Your task to perform on an android device: uninstall "Etsy: Buy & Sell Unique Items" Image 0: 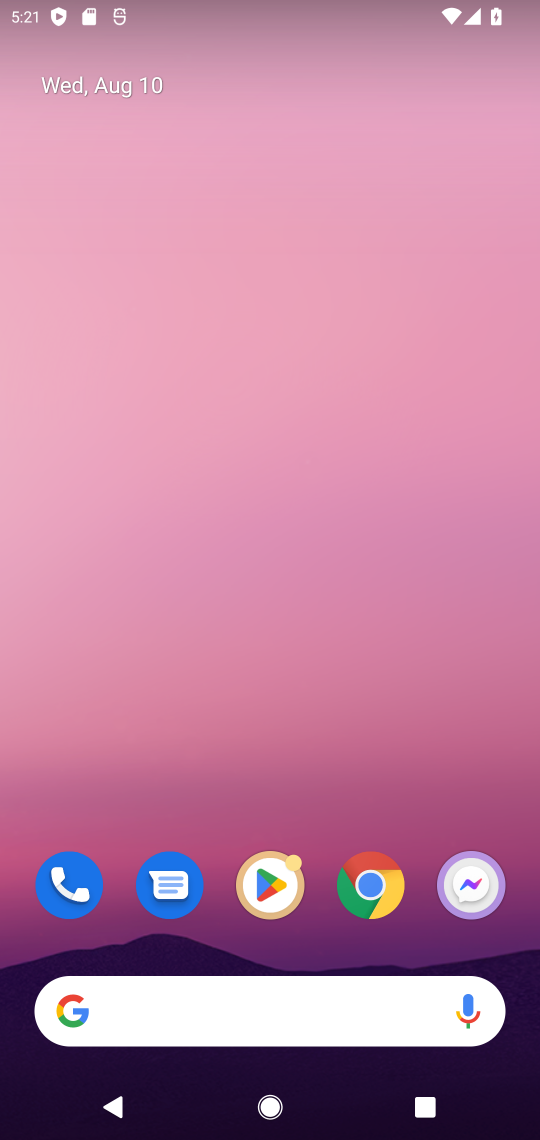
Step 0: click (274, 884)
Your task to perform on an android device: uninstall "Etsy: Buy & Sell Unique Items" Image 1: 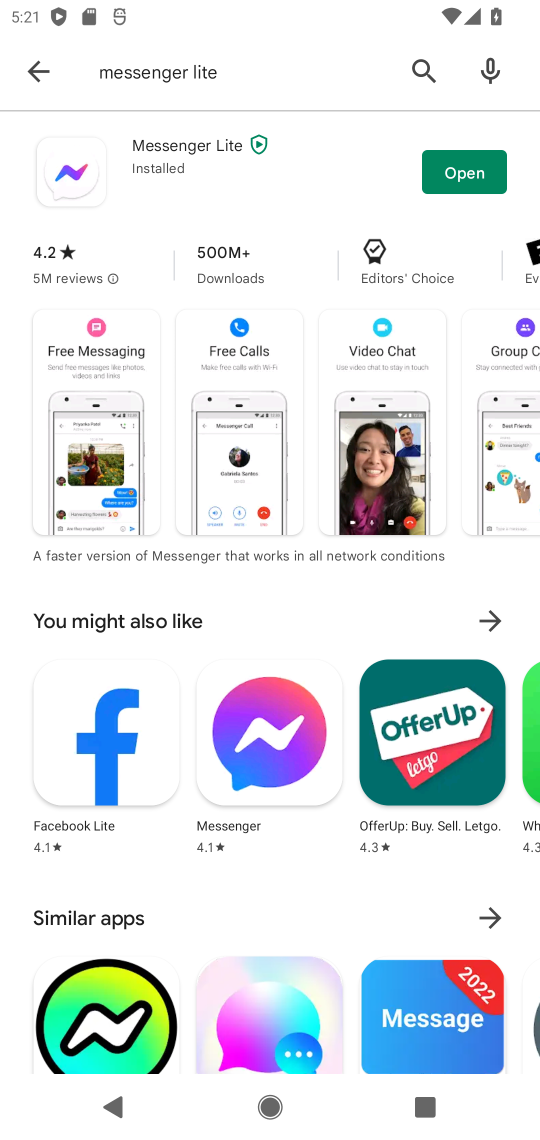
Step 1: click (420, 69)
Your task to perform on an android device: uninstall "Etsy: Buy & Sell Unique Items" Image 2: 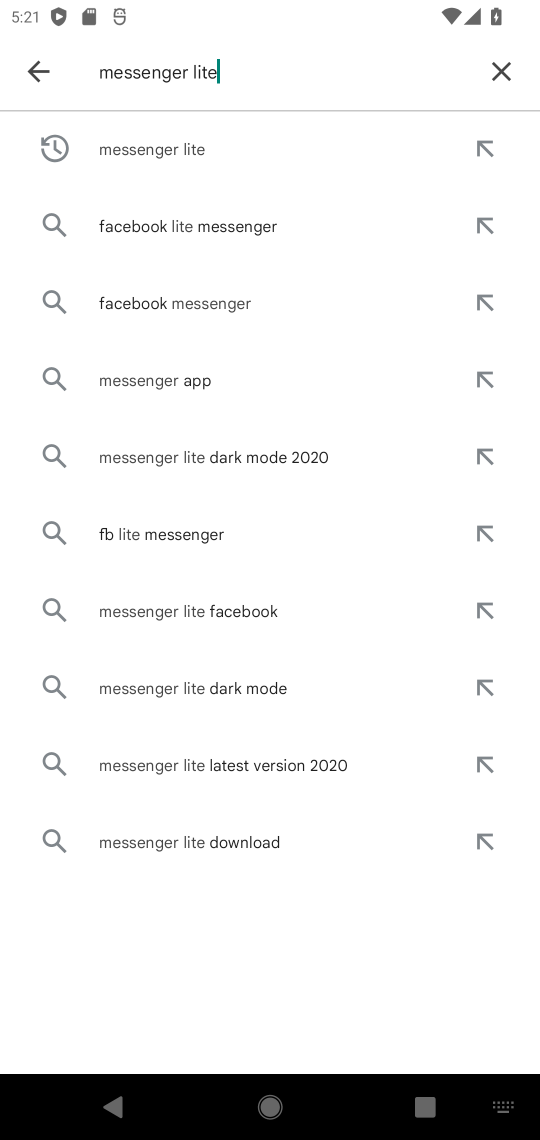
Step 2: click (511, 66)
Your task to perform on an android device: uninstall "Etsy: Buy & Sell Unique Items" Image 3: 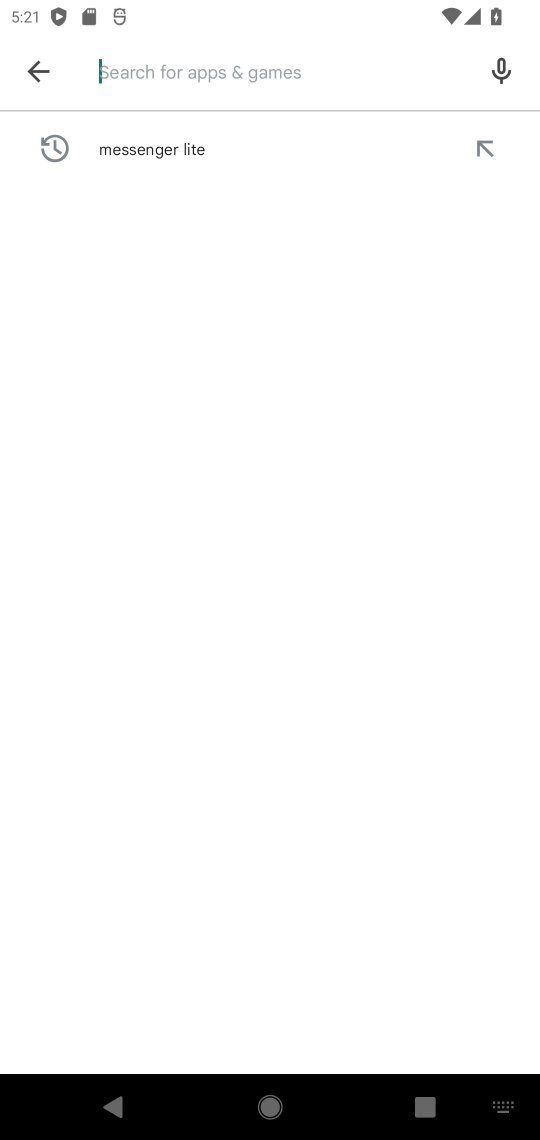
Step 3: click (148, 84)
Your task to perform on an android device: uninstall "Etsy: Buy & Sell Unique Items" Image 4: 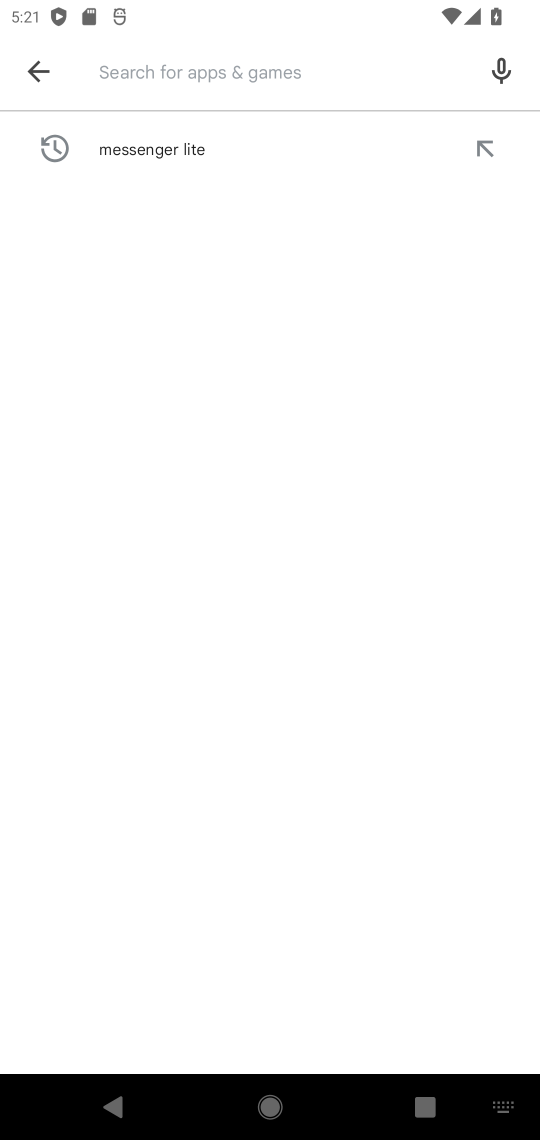
Step 4: type "etsy"
Your task to perform on an android device: uninstall "Etsy: Buy & Sell Unique Items" Image 5: 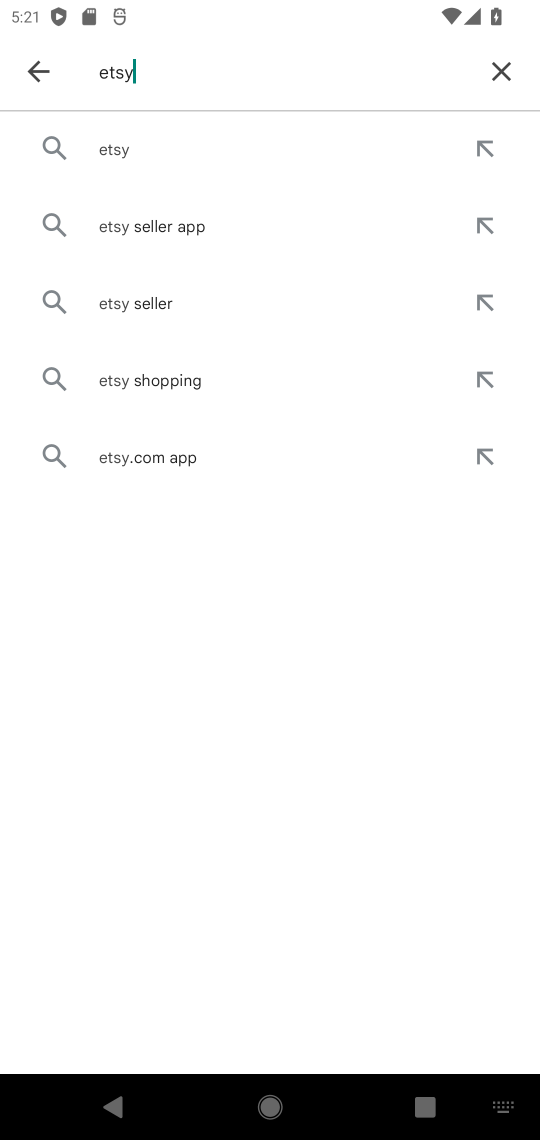
Step 5: click (141, 152)
Your task to perform on an android device: uninstall "Etsy: Buy & Sell Unique Items" Image 6: 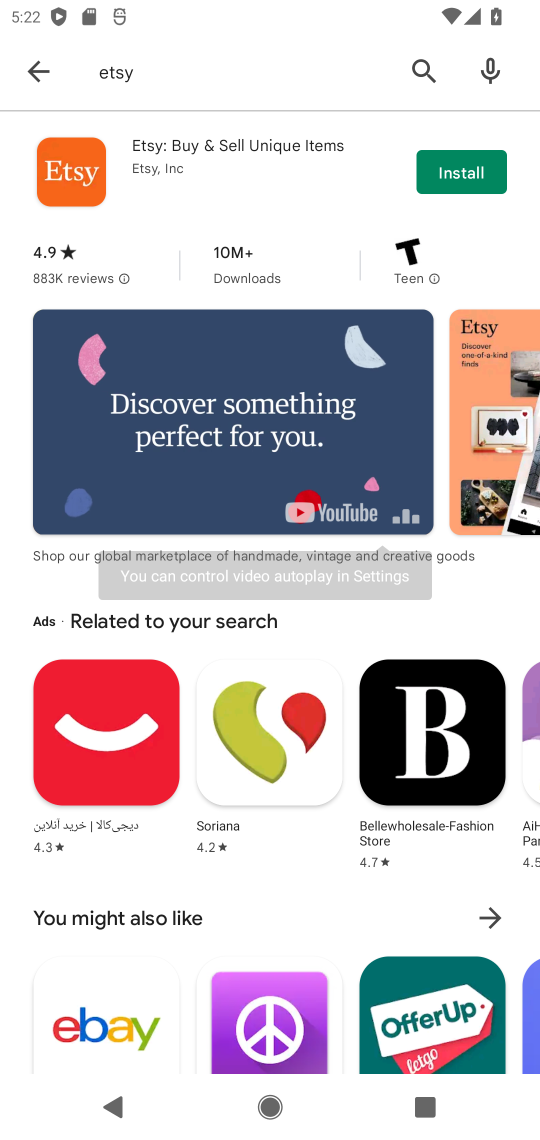
Step 6: task complete